Your task to perform on an android device: Open Chrome and go to settings Image 0: 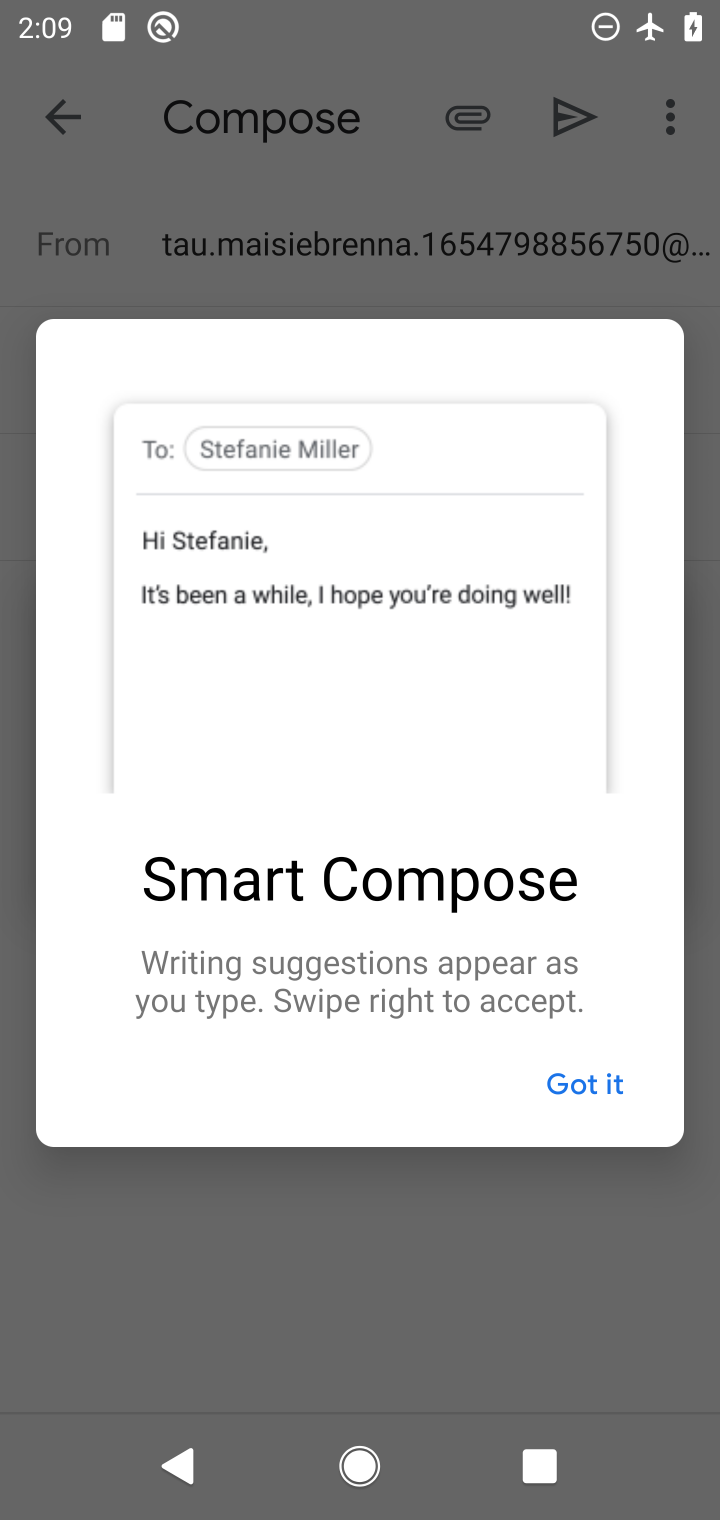
Step 0: press home button
Your task to perform on an android device: Open Chrome and go to settings Image 1: 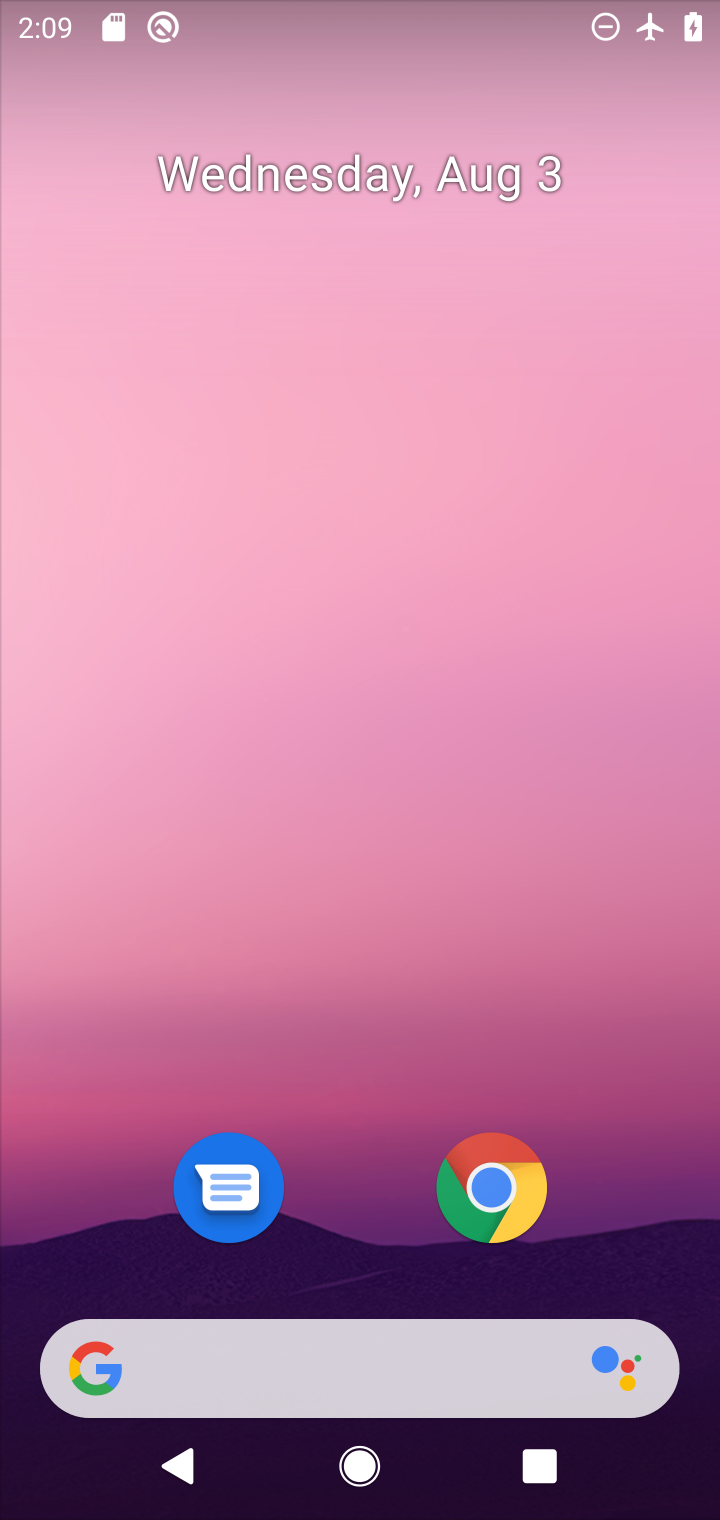
Step 1: click (482, 1188)
Your task to perform on an android device: Open Chrome and go to settings Image 2: 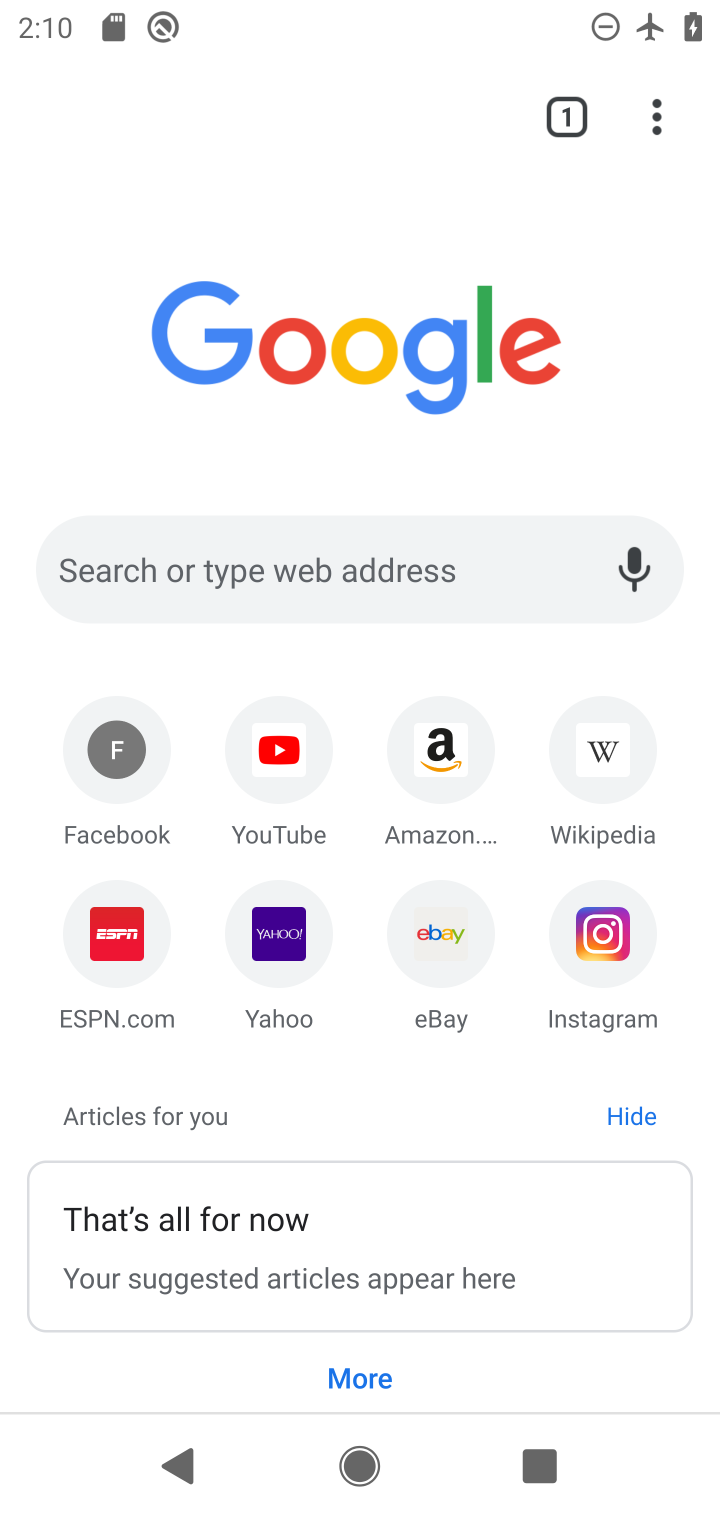
Step 2: click (654, 123)
Your task to perform on an android device: Open Chrome and go to settings Image 3: 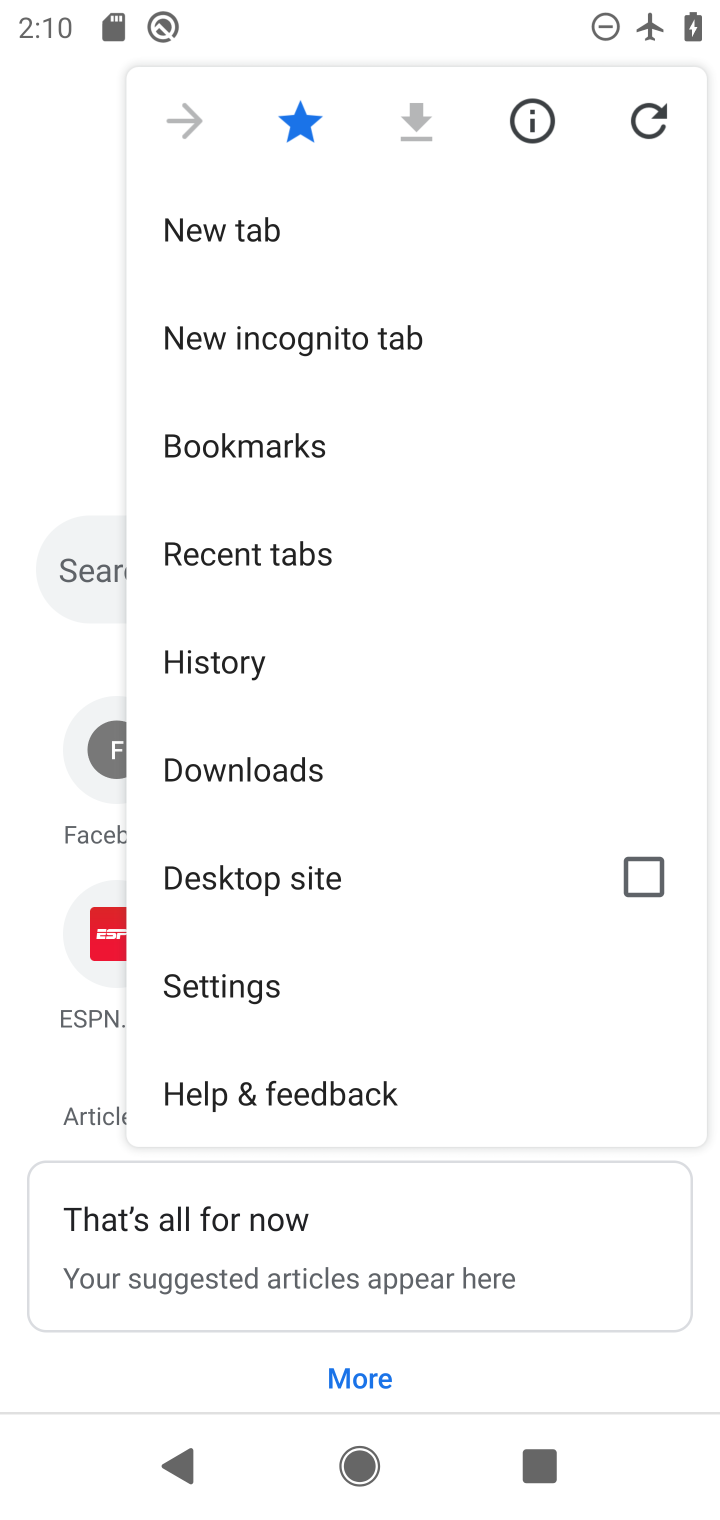
Step 3: click (254, 986)
Your task to perform on an android device: Open Chrome and go to settings Image 4: 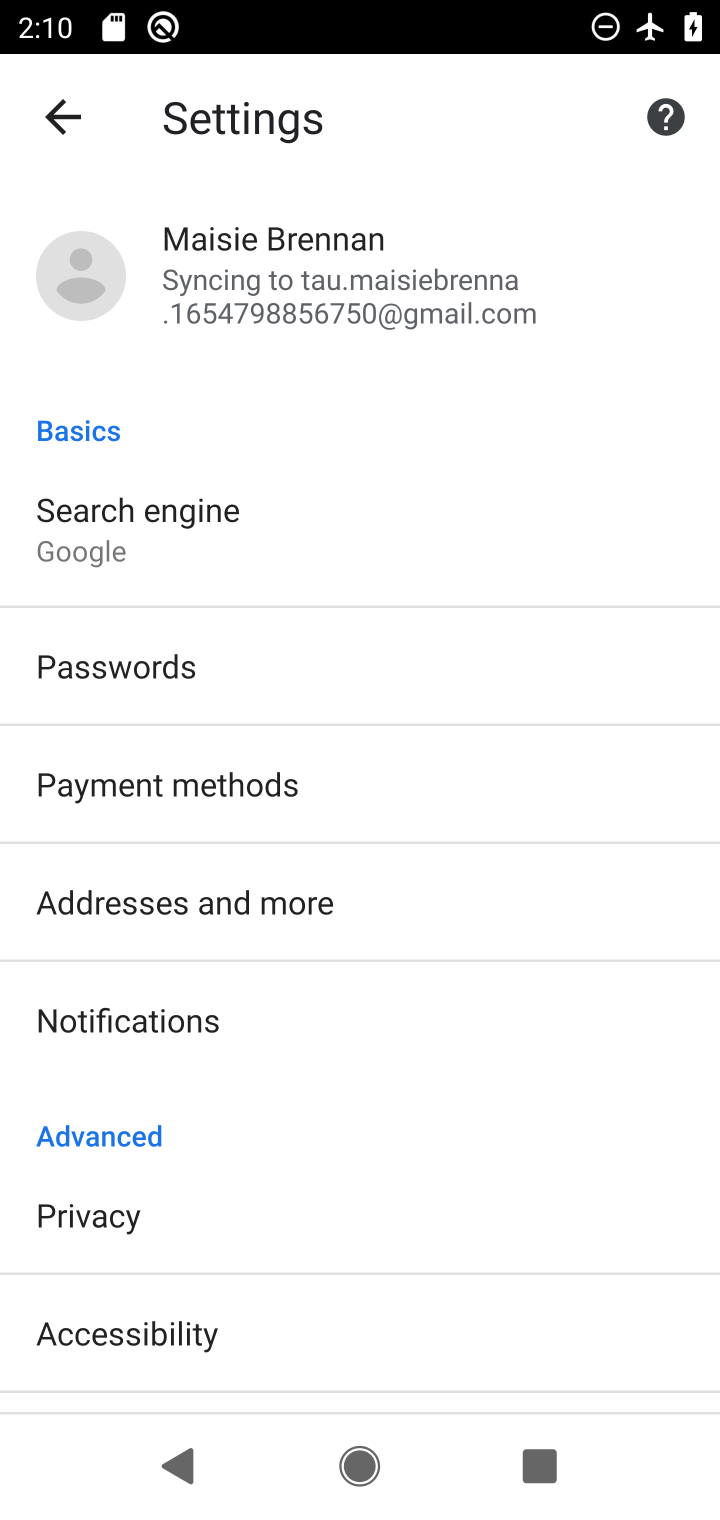
Step 4: task complete